Your task to perform on an android device: open app "Gboard" Image 0: 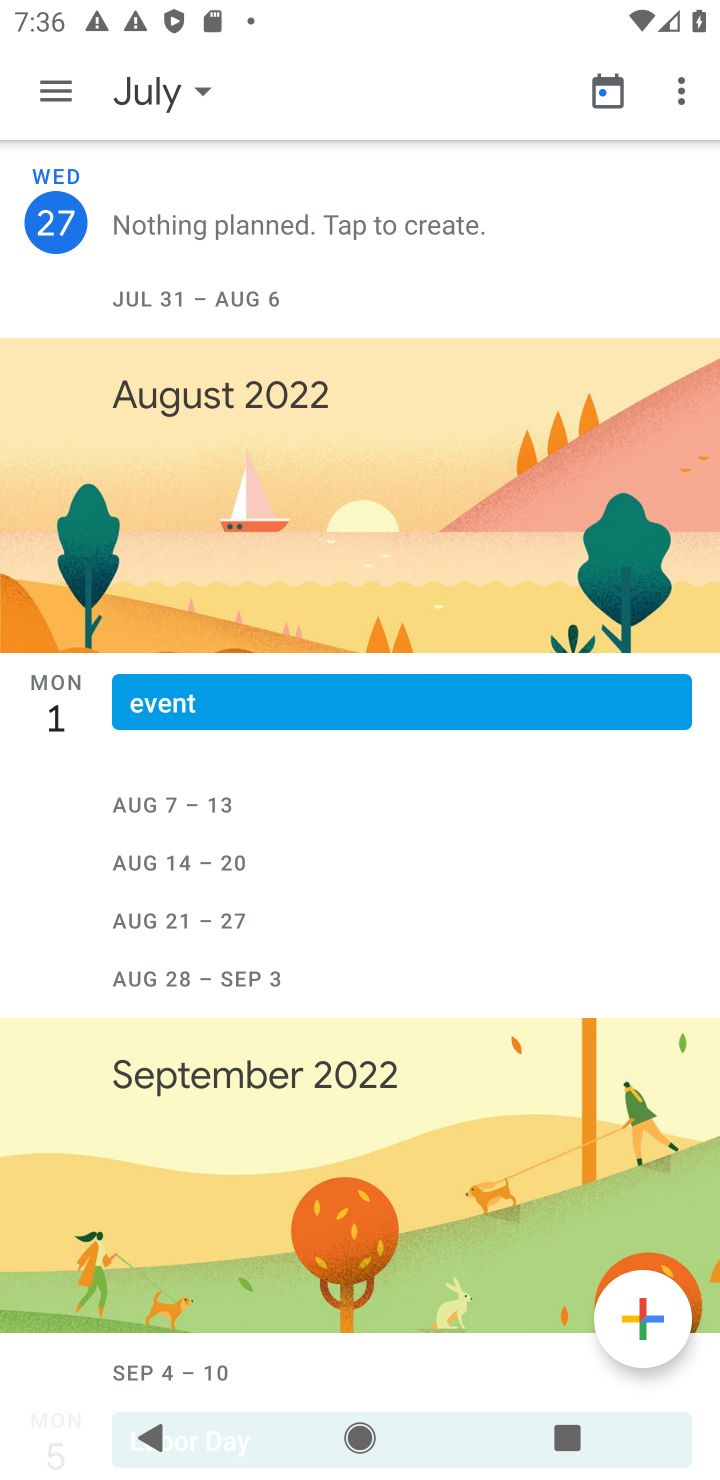
Step 0: press home button
Your task to perform on an android device: open app "Gboard" Image 1: 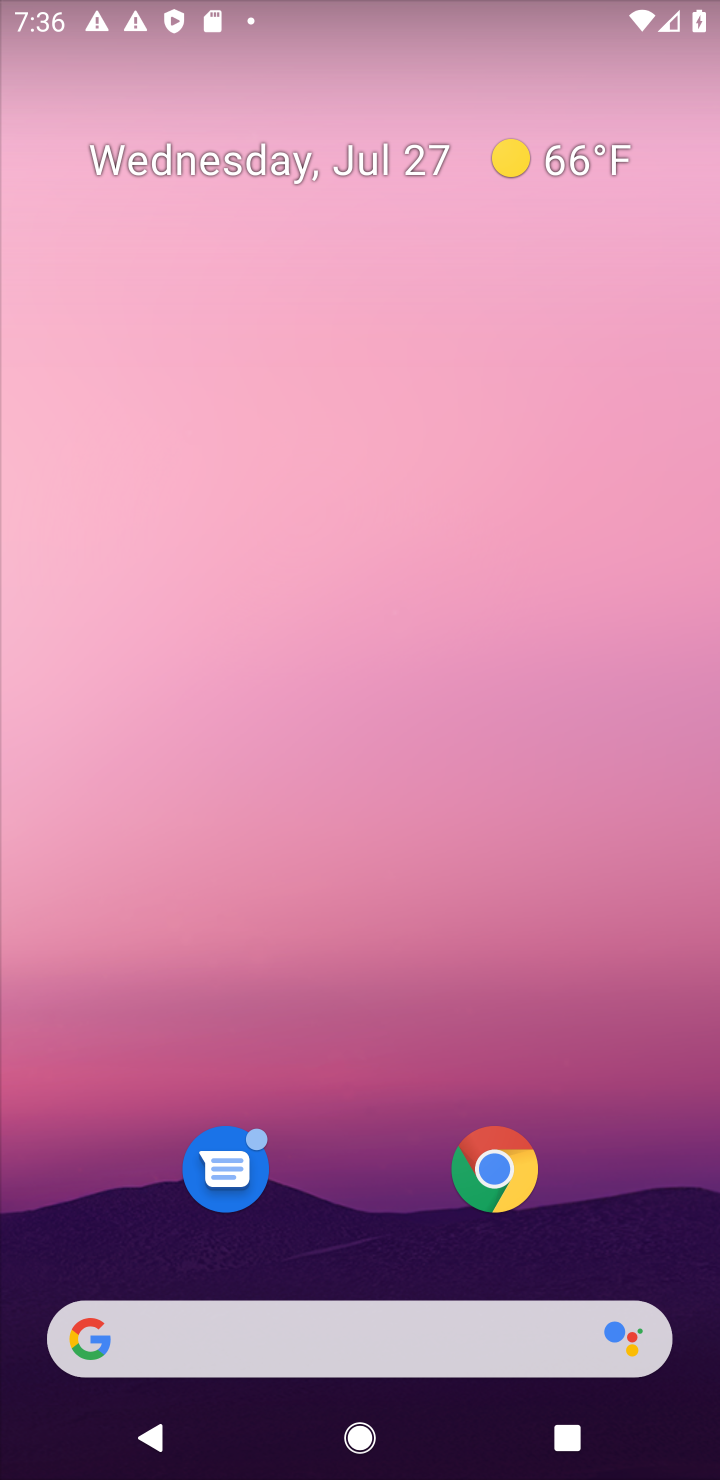
Step 1: task complete